Your task to perform on an android device: toggle translation in the chrome app Image 0: 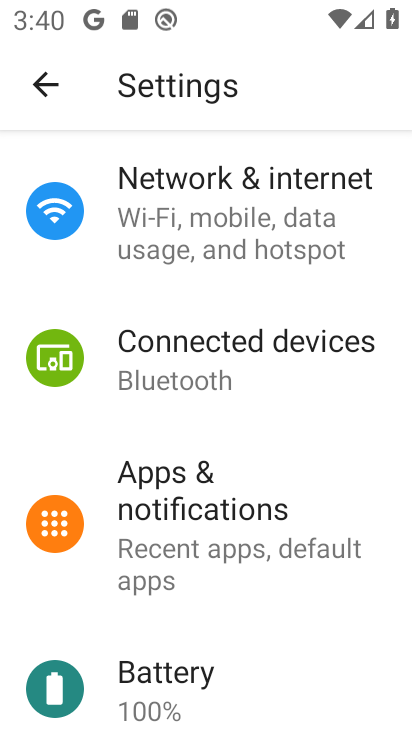
Step 0: press home button
Your task to perform on an android device: toggle translation in the chrome app Image 1: 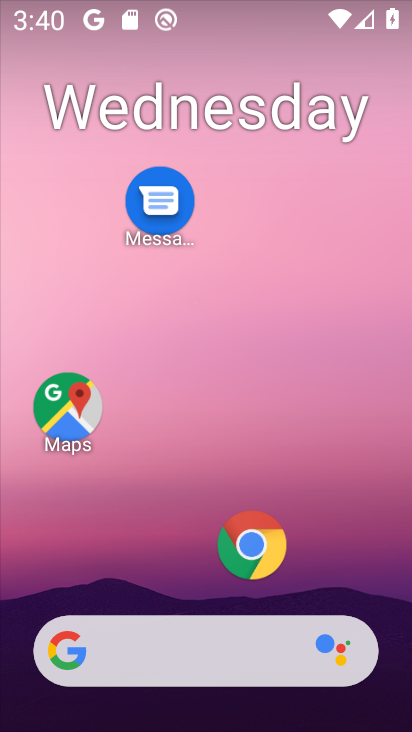
Step 1: click (256, 545)
Your task to perform on an android device: toggle translation in the chrome app Image 2: 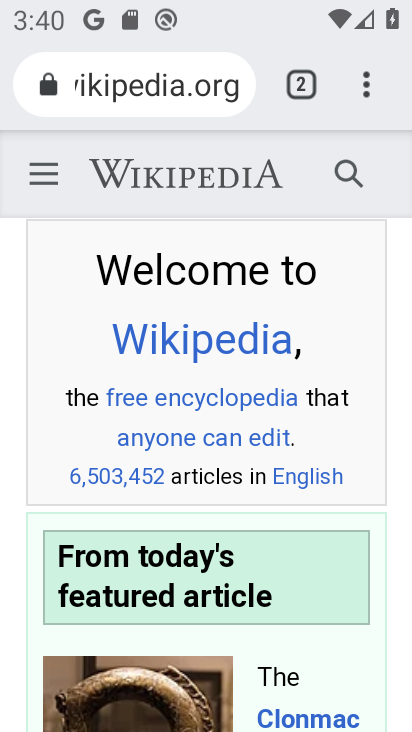
Step 2: click (376, 85)
Your task to perform on an android device: toggle translation in the chrome app Image 3: 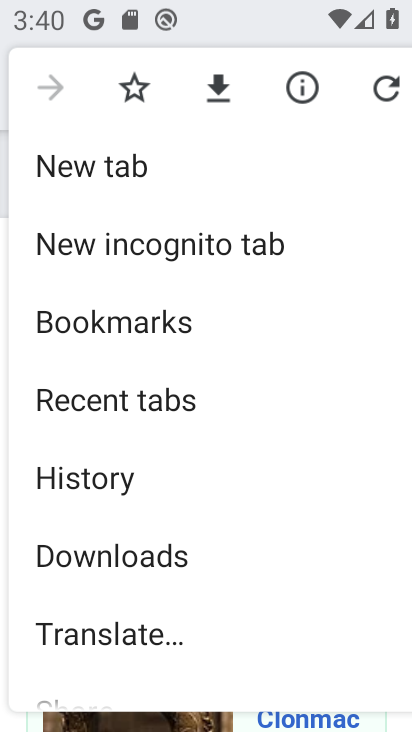
Step 3: drag from (206, 537) to (171, 311)
Your task to perform on an android device: toggle translation in the chrome app Image 4: 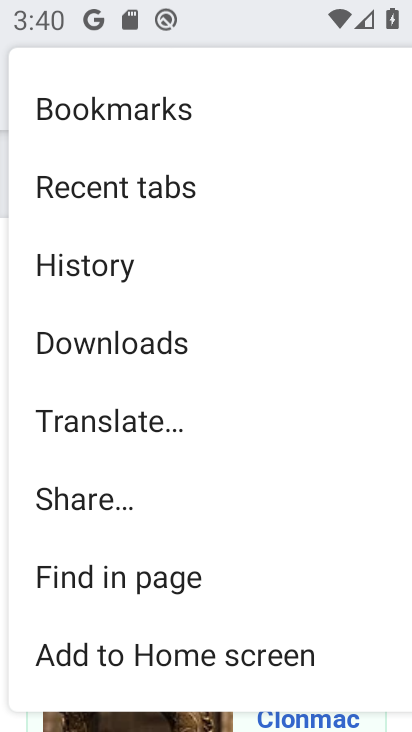
Step 4: drag from (202, 558) to (193, 325)
Your task to perform on an android device: toggle translation in the chrome app Image 5: 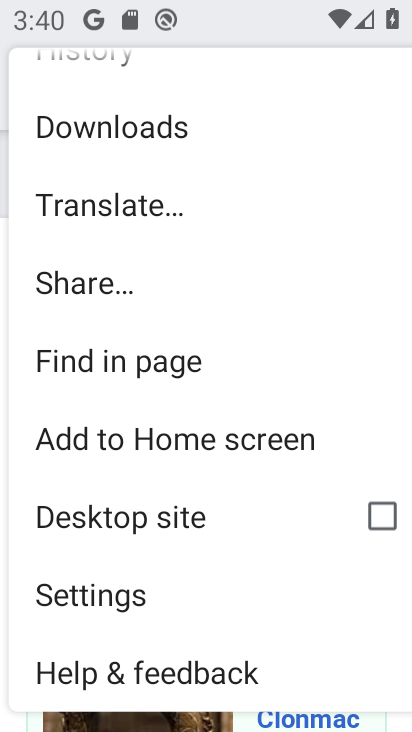
Step 5: click (117, 591)
Your task to perform on an android device: toggle translation in the chrome app Image 6: 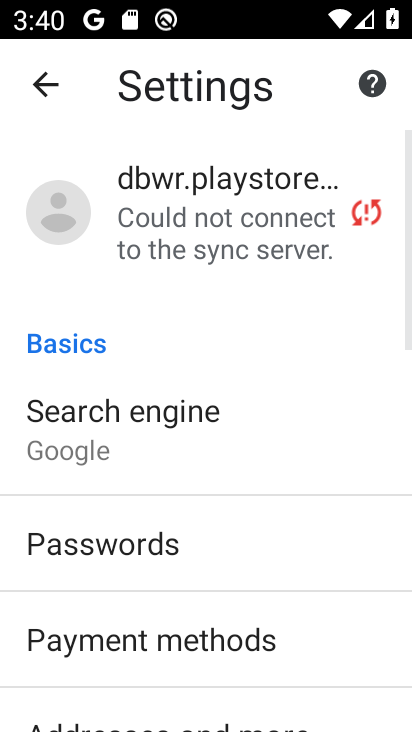
Step 6: drag from (270, 652) to (227, 419)
Your task to perform on an android device: toggle translation in the chrome app Image 7: 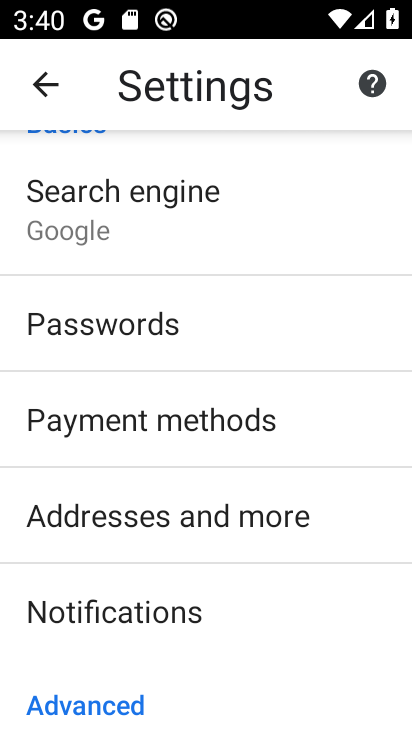
Step 7: drag from (255, 600) to (231, 276)
Your task to perform on an android device: toggle translation in the chrome app Image 8: 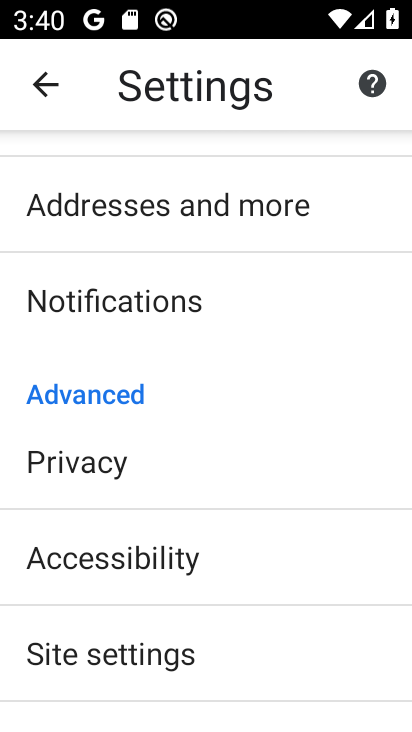
Step 8: drag from (236, 656) to (214, 478)
Your task to perform on an android device: toggle translation in the chrome app Image 9: 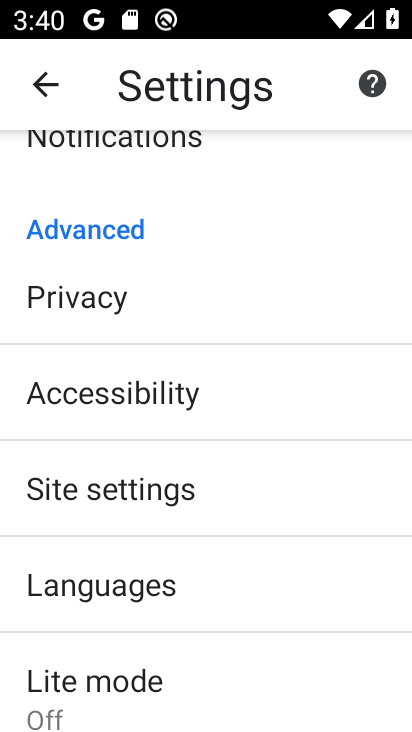
Step 9: click (155, 586)
Your task to perform on an android device: toggle translation in the chrome app Image 10: 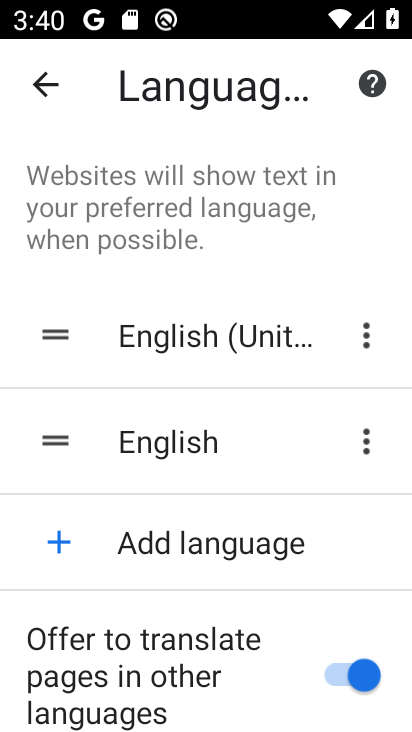
Step 10: click (321, 676)
Your task to perform on an android device: toggle translation in the chrome app Image 11: 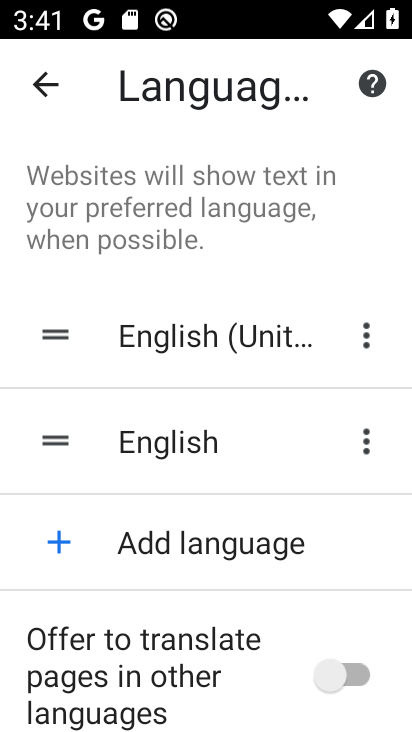
Step 11: task complete